Your task to perform on an android device: Add dell alienware to the cart on walmart.com Image 0: 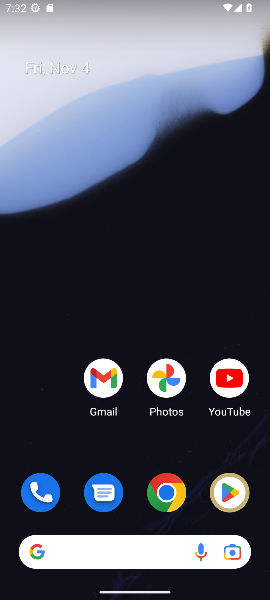
Step 0: drag from (130, 432) to (128, 68)
Your task to perform on an android device: Add dell alienware to the cart on walmart.com Image 1: 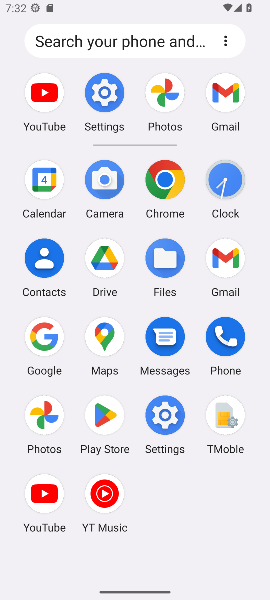
Step 1: click (166, 175)
Your task to perform on an android device: Add dell alienware to the cart on walmart.com Image 2: 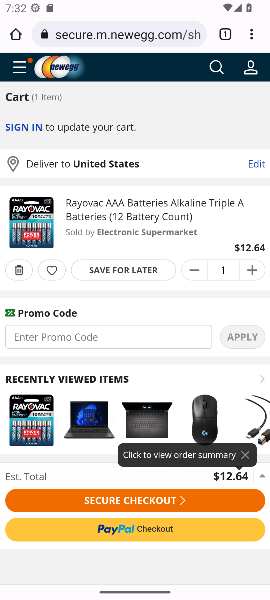
Step 2: click (147, 30)
Your task to perform on an android device: Add dell alienware to the cart on walmart.com Image 3: 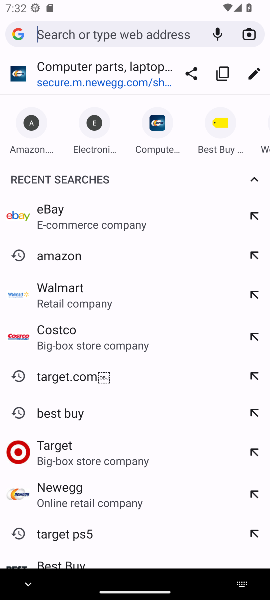
Step 3: type "walmart.com"
Your task to perform on an android device: Add dell alienware to the cart on walmart.com Image 4: 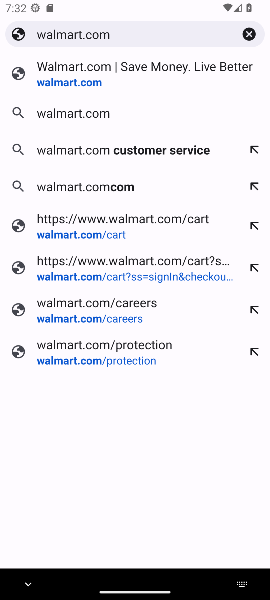
Step 4: press enter
Your task to perform on an android device: Add dell alienware to the cart on walmart.com Image 5: 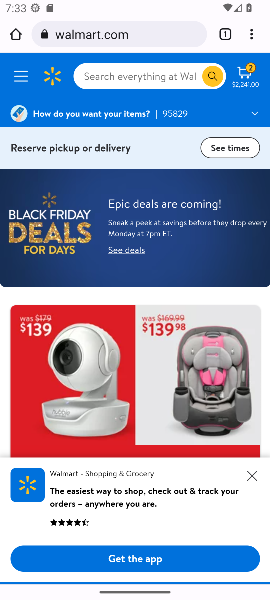
Step 5: click (161, 74)
Your task to perform on an android device: Add dell alienware to the cart on walmart.com Image 6: 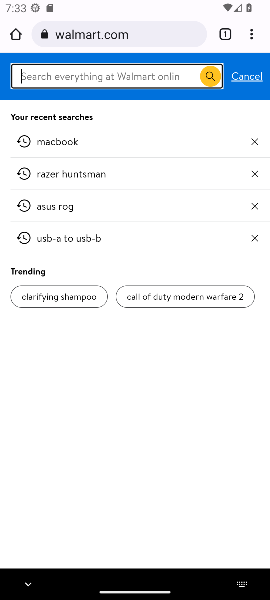
Step 6: type "dell alienware"
Your task to perform on an android device: Add dell alienware to the cart on walmart.com Image 7: 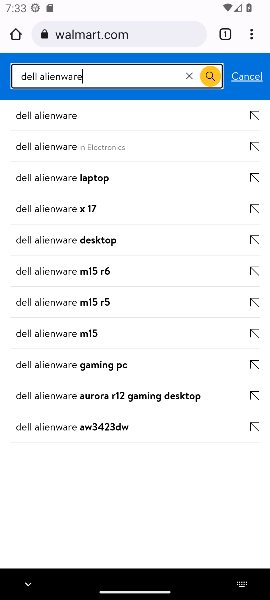
Step 7: press enter
Your task to perform on an android device: Add dell alienware to the cart on walmart.com Image 8: 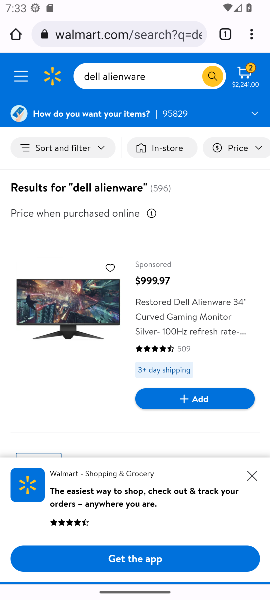
Step 8: click (221, 403)
Your task to perform on an android device: Add dell alienware to the cart on walmart.com Image 9: 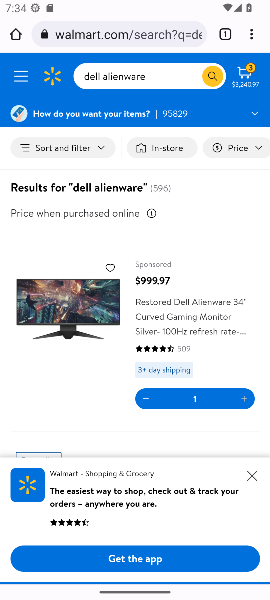
Step 9: task complete